Your task to perform on an android device: turn off notifications settings in the gmail app Image 0: 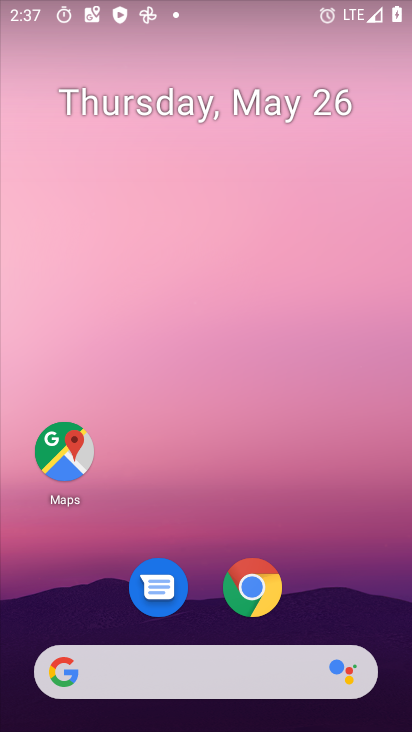
Step 0: drag from (373, 609) to (391, 111)
Your task to perform on an android device: turn off notifications settings in the gmail app Image 1: 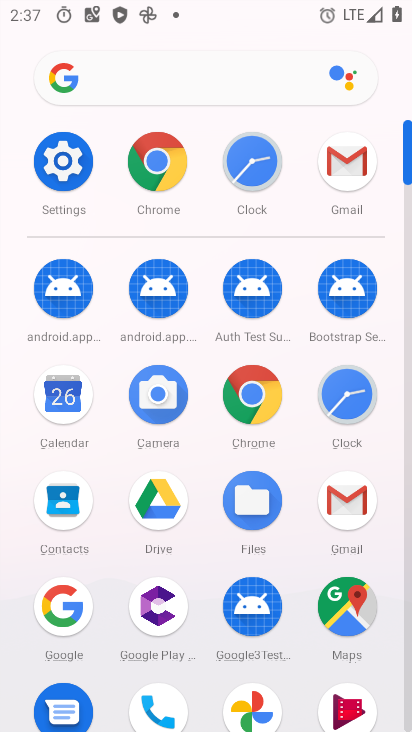
Step 1: click (72, 173)
Your task to perform on an android device: turn off notifications settings in the gmail app Image 2: 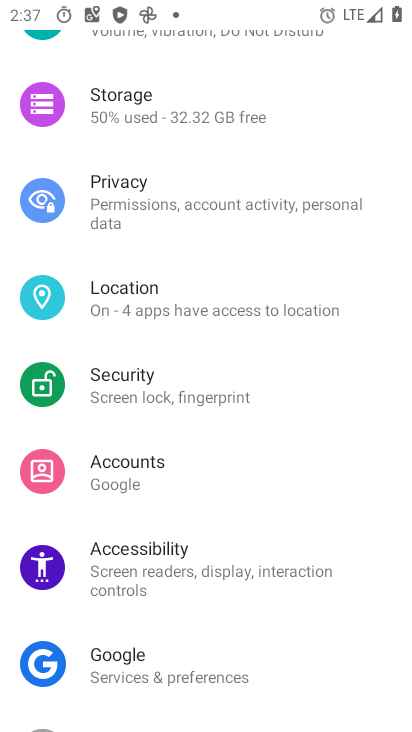
Step 2: drag from (375, 151) to (376, 243)
Your task to perform on an android device: turn off notifications settings in the gmail app Image 3: 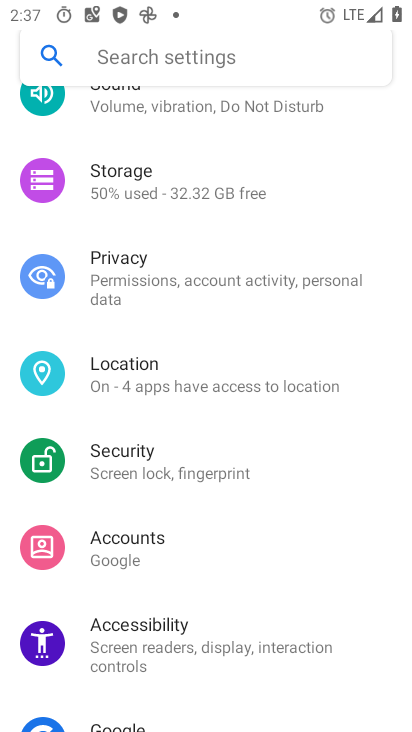
Step 3: drag from (363, 177) to (351, 238)
Your task to perform on an android device: turn off notifications settings in the gmail app Image 4: 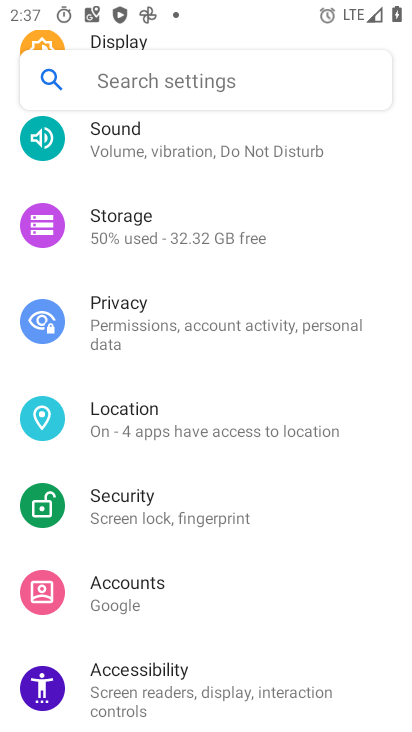
Step 4: press home button
Your task to perform on an android device: turn off notifications settings in the gmail app Image 5: 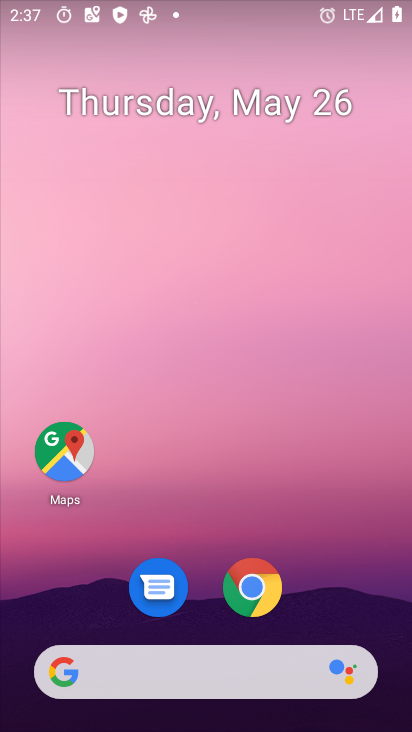
Step 5: drag from (352, 603) to (342, 170)
Your task to perform on an android device: turn off notifications settings in the gmail app Image 6: 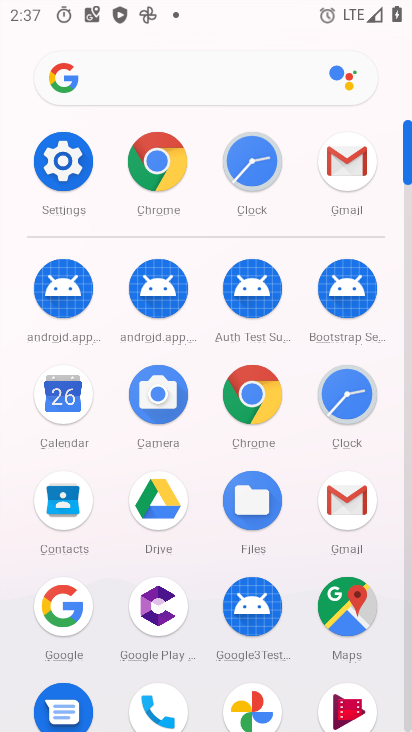
Step 6: click (351, 508)
Your task to perform on an android device: turn off notifications settings in the gmail app Image 7: 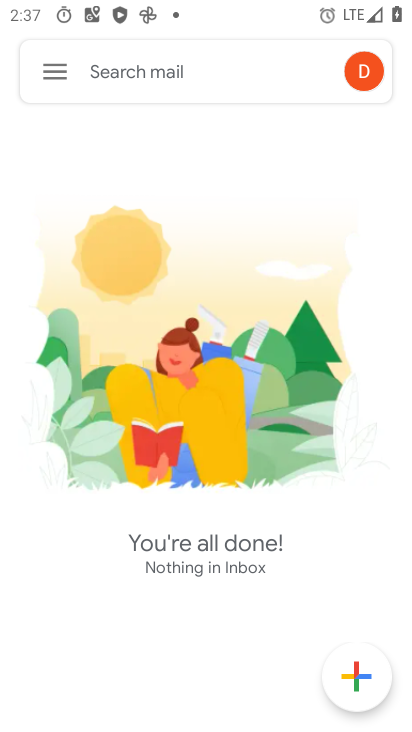
Step 7: click (61, 76)
Your task to perform on an android device: turn off notifications settings in the gmail app Image 8: 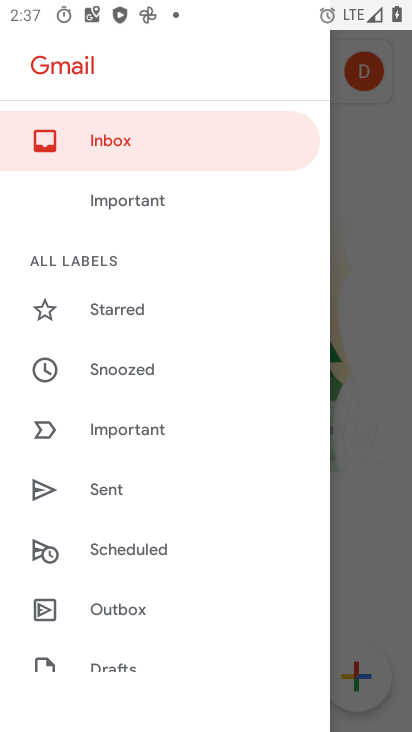
Step 8: drag from (212, 375) to (229, 304)
Your task to perform on an android device: turn off notifications settings in the gmail app Image 9: 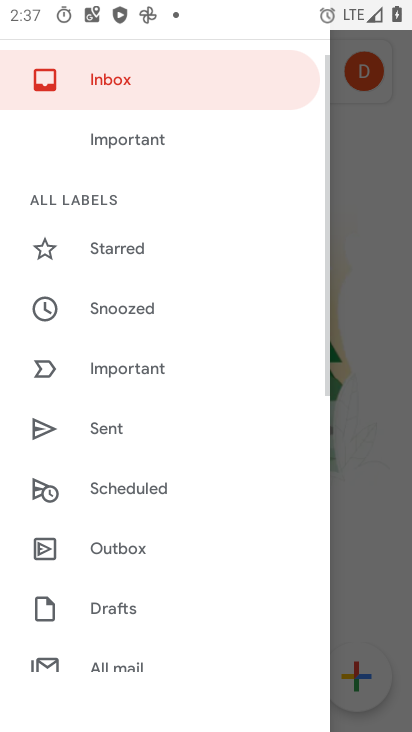
Step 9: drag from (231, 428) to (249, 328)
Your task to perform on an android device: turn off notifications settings in the gmail app Image 10: 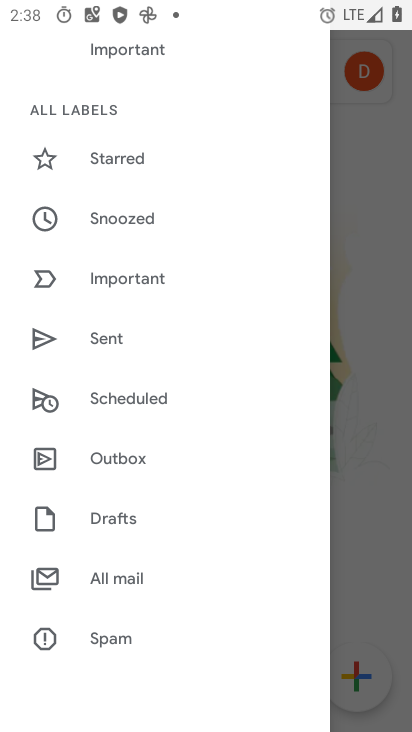
Step 10: drag from (242, 404) to (250, 317)
Your task to perform on an android device: turn off notifications settings in the gmail app Image 11: 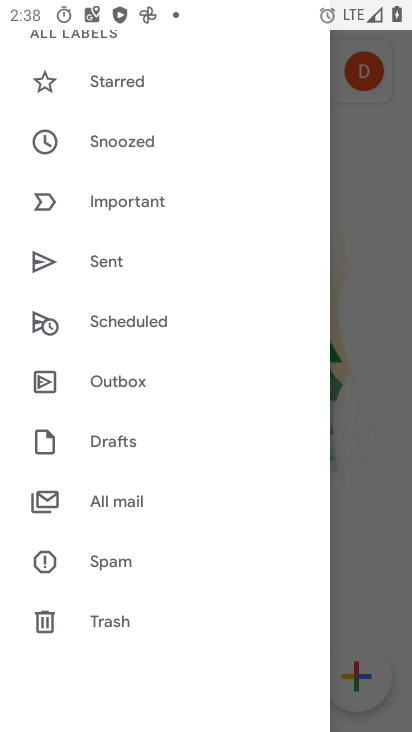
Step 11: drag from (242, 411) to (248, 322)
Your task to perform on an android device: turn off notifications settings in the gmail app Image 12: 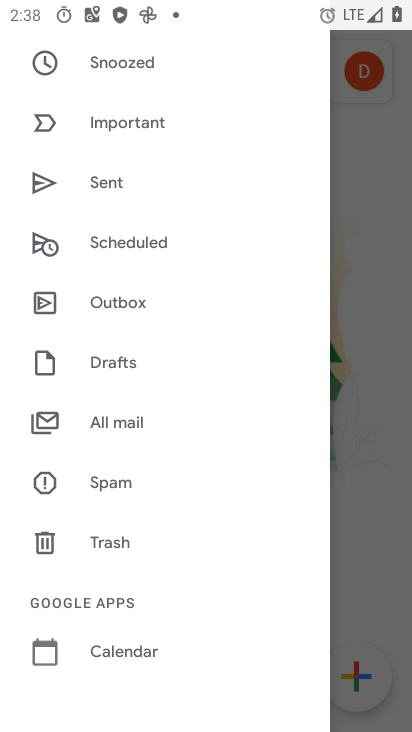
Step 12: drag from (225, 434) to (228, 323)
Your task to perform on an android device: turn off notifications settings in the gmail app Image 13: 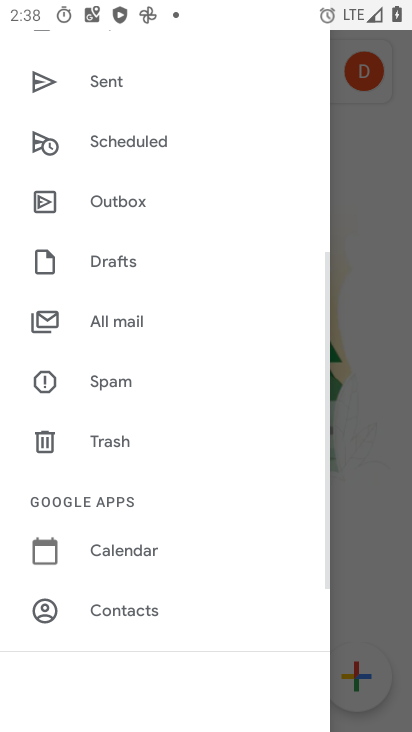
Step 13: drag from (224, 460) to (219, 366)
Your task to perform on an android device: turn off notifications settings in the gmail app Image 14: 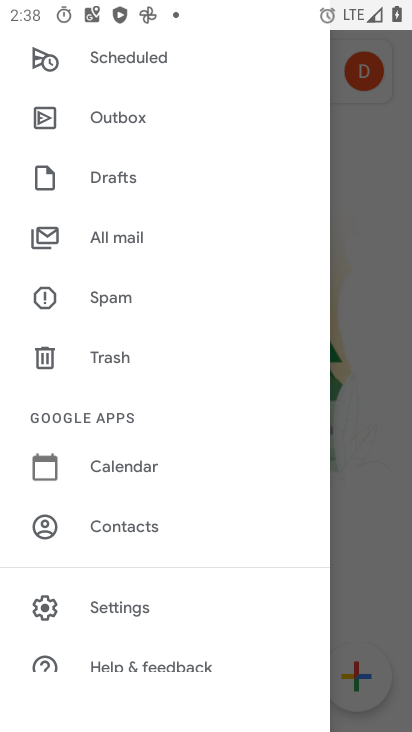
Step 14: drag from (218, 480) to (211, 322)
Your task to perform on an android device: turn off notifications settings in the gmail app Image 15: 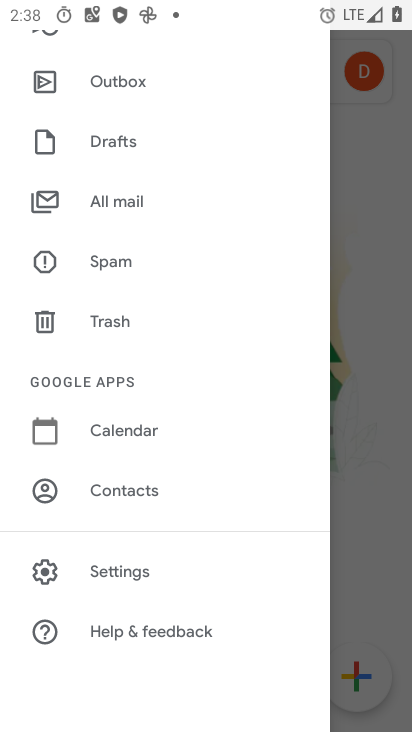
Step 15: click (130, 571)
Your task to perform on an android device: turn off notifications settings in the gmail app Image 16: 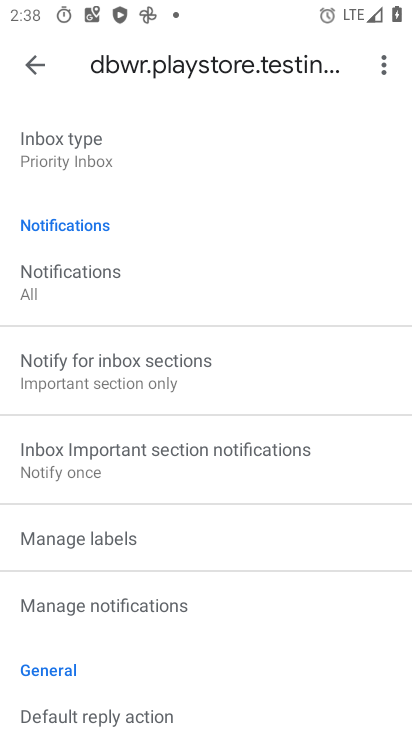
Step 16: drag from (272, 250) to (265, 397)
Your task to perform on an android device: turn off notifications settings in the gmail app Image 17: 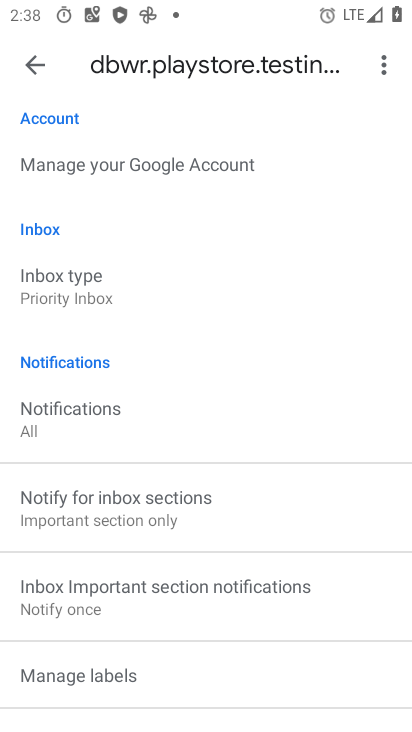
Step 17: drag from (269, 231) to (269, 383)
Your task to perform on an android device: turn off notifications settings in the gmail app Image 18: 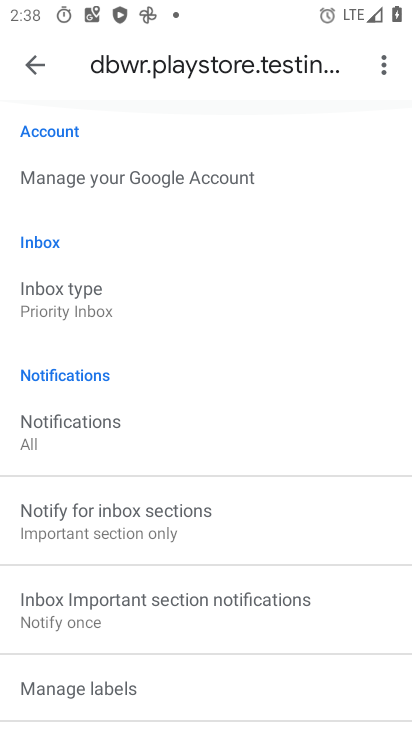
Step 18: drag from (268, 409) to (268, 318)
Your task to perform on an android device: turn off notifications settings in the gmail app Image 19: 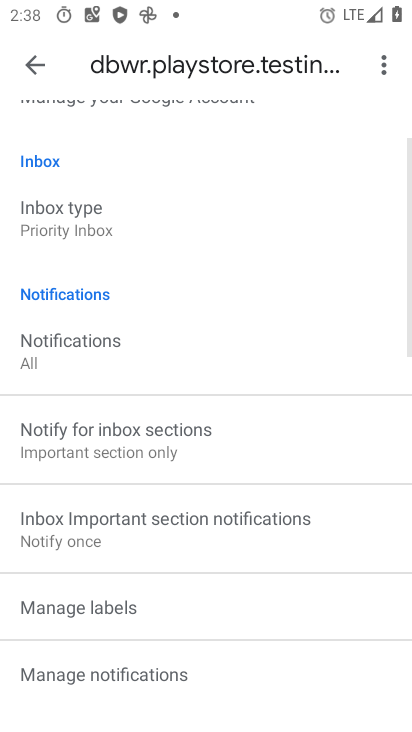
Step 19: drag from (267, 428) to (276, 320)
Your task to perform on an android device: turn off notifications settings in the gmail app Image 20: 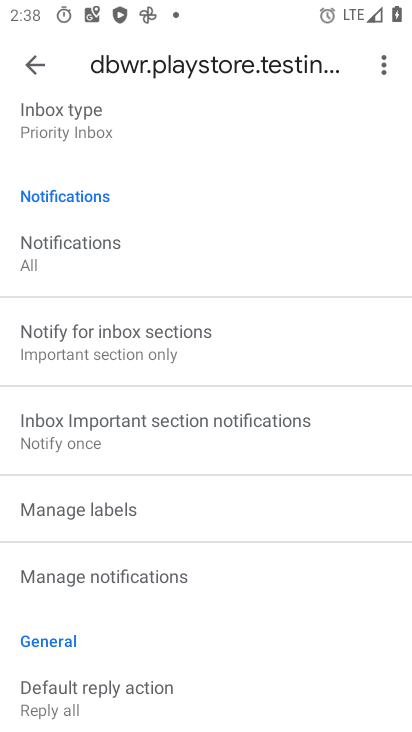
Step 20: drag from (277, 448) to (286, 342)
Your task to perform on an android device: turn off notifications settings in the gmail app Image 21: 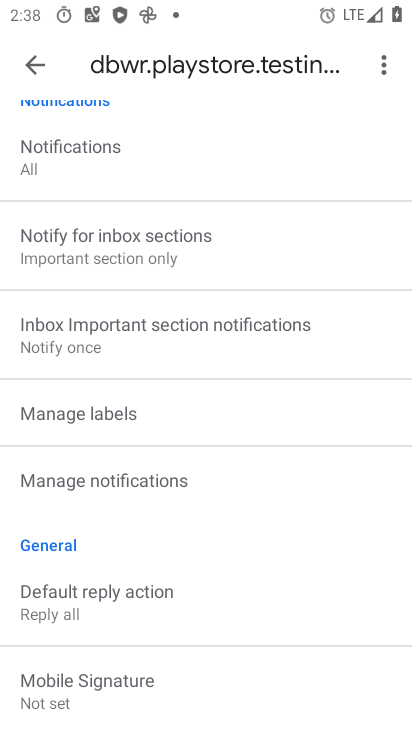
Step 21: drag from (271, 470) to (276, 382)
Your task to perform on an android device: turn off notifications settings in the gmail app Image 22: 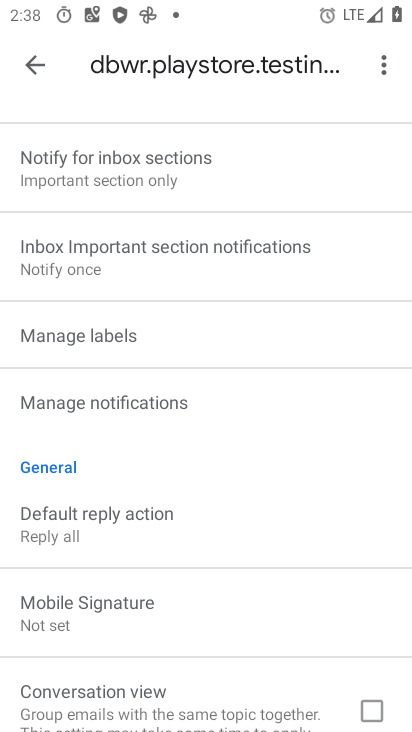
Step 22: click (211, 410)
Your task to perform on an android device: turn off notifications settings in the gmail app Image 23: 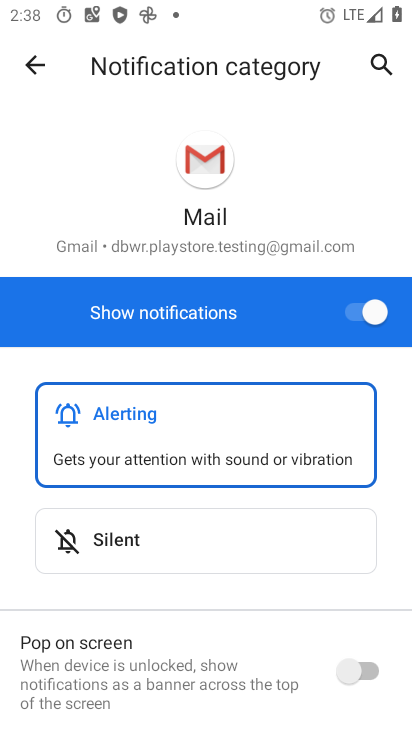
Step 23: click (368, 301)
Your task to perform on an android device: turn off notifications settings in the gmail app Image 24: 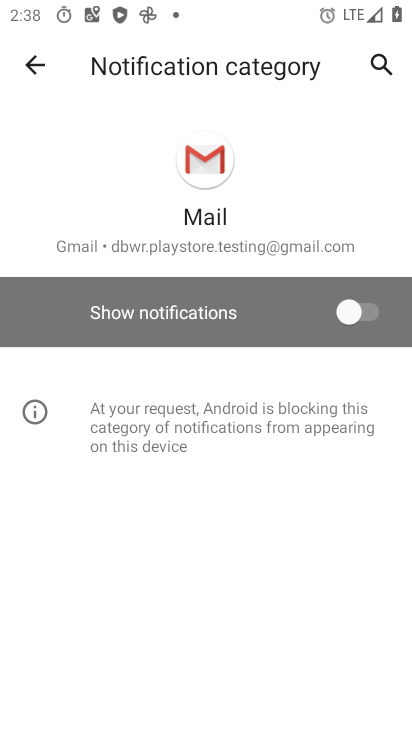
Step 24: task complete